Your task to perform on an android device: open sync settings in chrome Image 0: 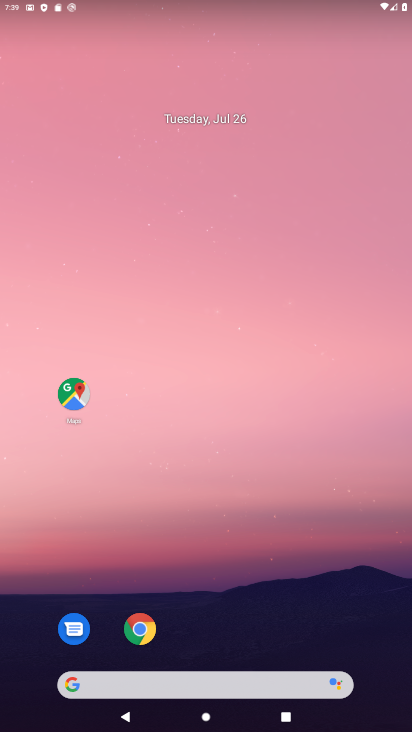
Step 0: press home button
Your task to perform on an android device: open sync settings in chrome Image 1: 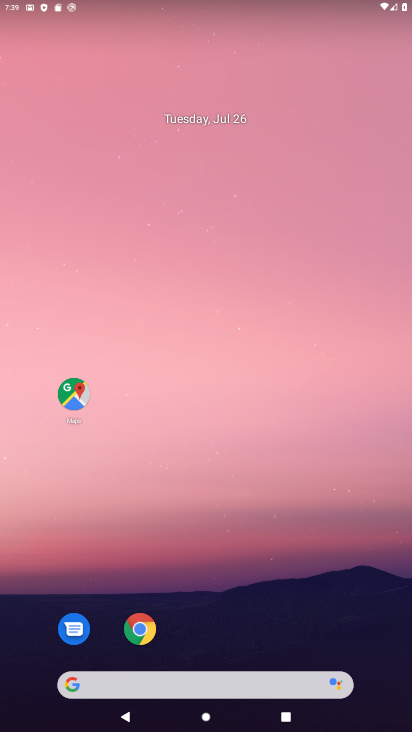
Step 1: click (141, 627)
Your task to perform on an android device: open sync settings in chrome Image 2: 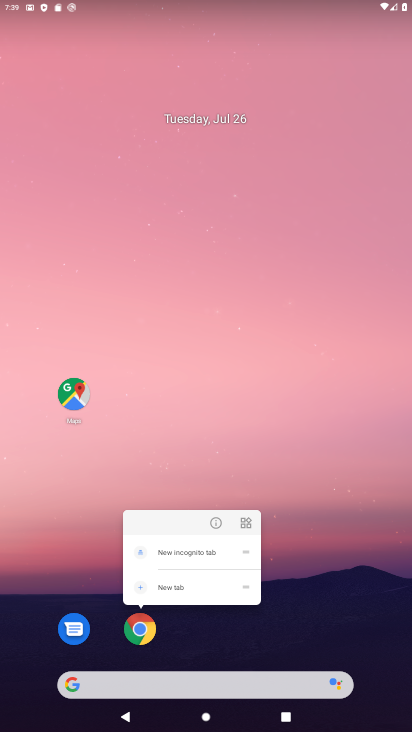
Step 2: click (136, 625)
Your task to perform on an android device: open sync settings in chrome Image 3: 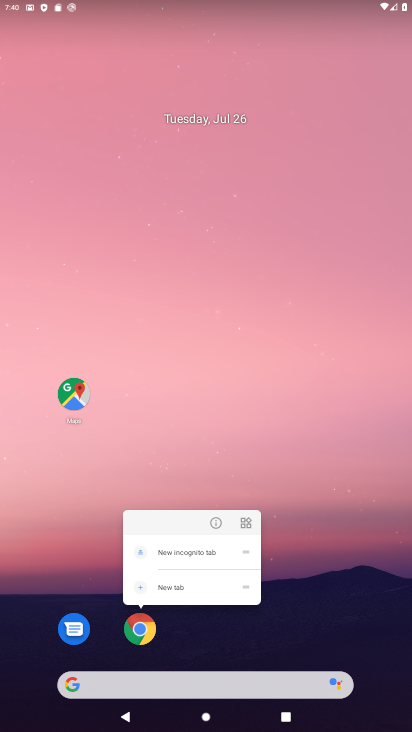
Step 3: click (137, 624)
Your task to perform on an android device: open sync settings in chrome Image 4: 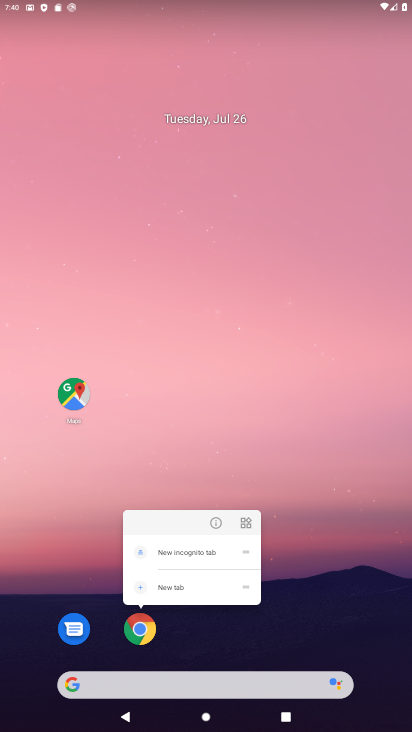
Step 4: click (275, 617)
Your task to perform on an android device: open sync settings in chrome Image 5: 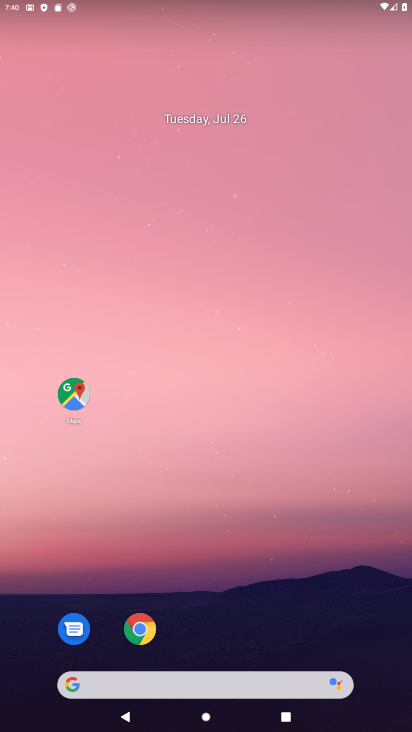
Step 5: drag from (301, 642) to (282, 2)
Your task to perform on an android device: open sync settings in chrome Image 6: 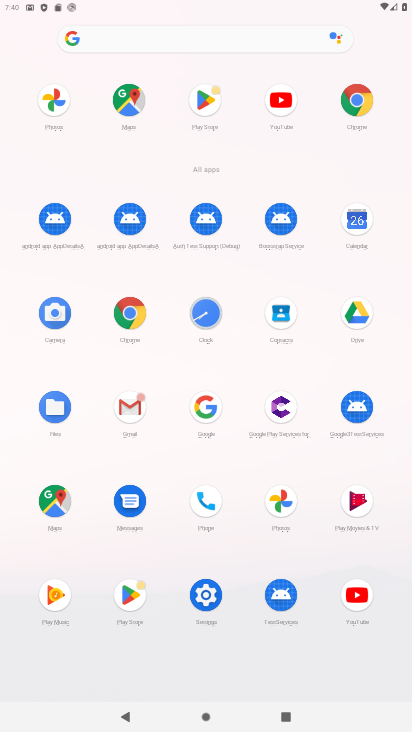
Step 6: click (354, 94)
Your task to perform on an android device: open sync settings in chrome Image 7: 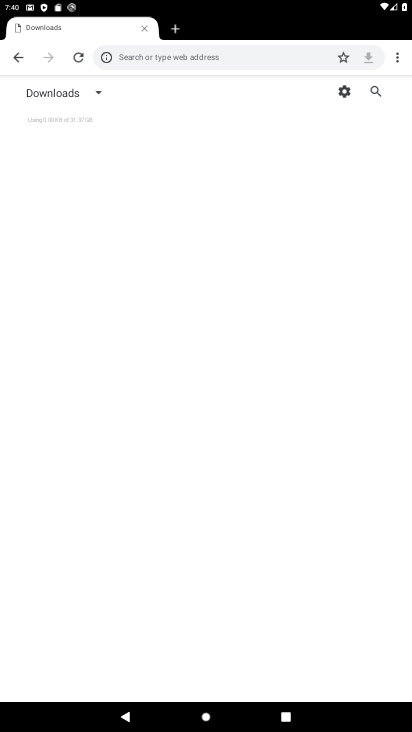
Step 7: click (398, 56)
Your task to perform on an android device: open sync settings in chrome Image 8: 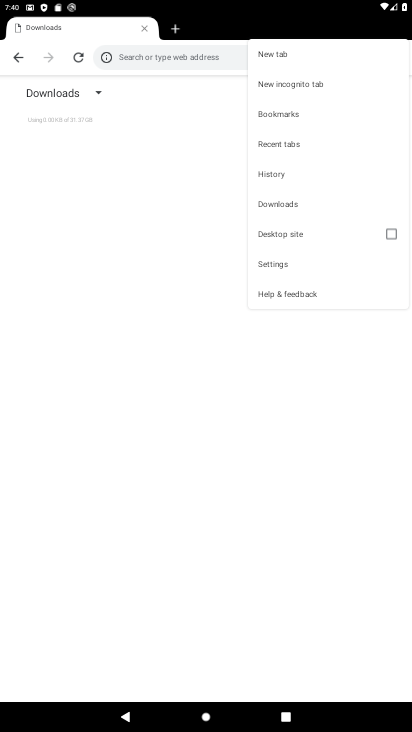
Step 8: click (290, 262)
Your task to perform on an android device: open sync settings in chrome Image 9: 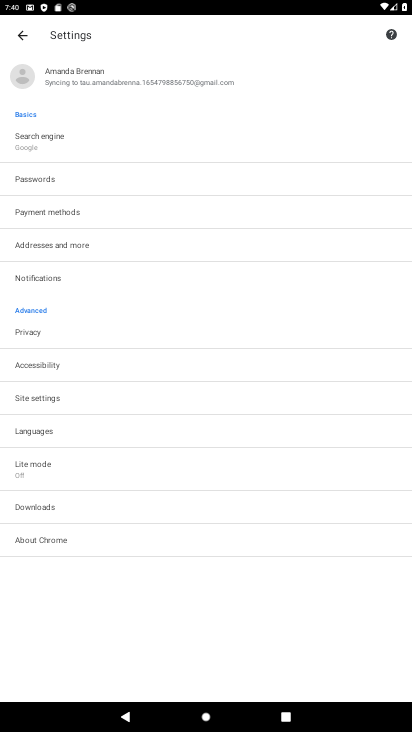
Step 9: click (108, 74)
Your task to perform on an android device: open sync settings in chrome Image 10: 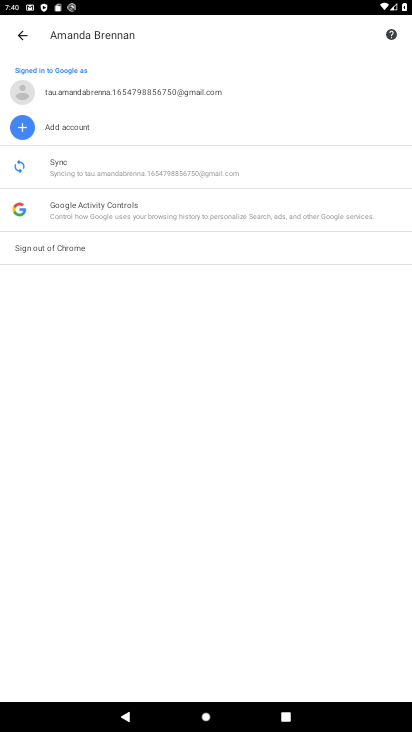
Step 10: click (83, 161)
Your task to perform on an android device: open sync settings in chrome Image 11: 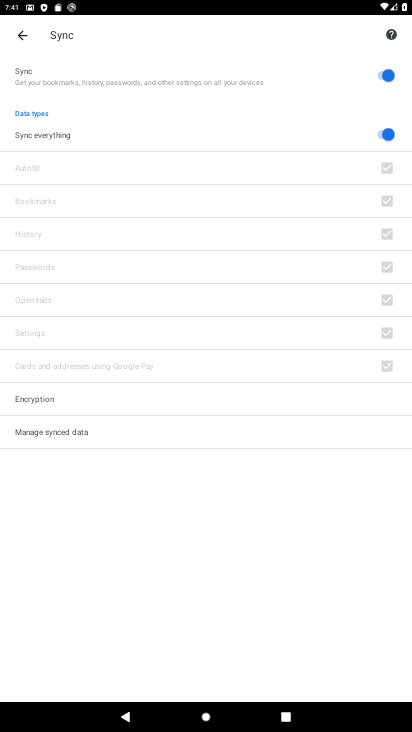
Step 11: task complete